Your task to perform on an android device: Open settings Image 0: 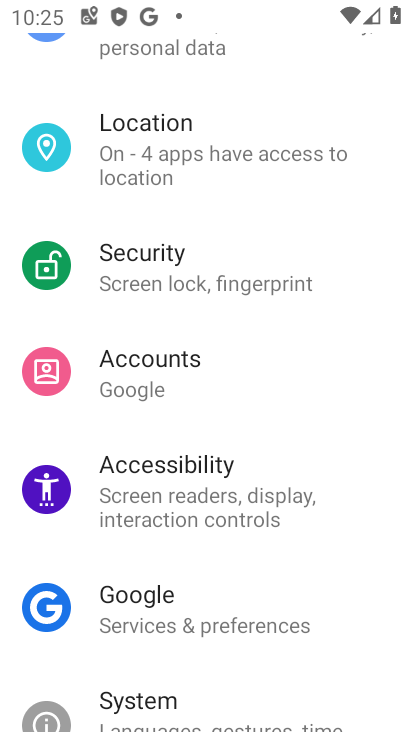
Step 0: press home button
Your task to perform on an android device: Open settings Image 1: 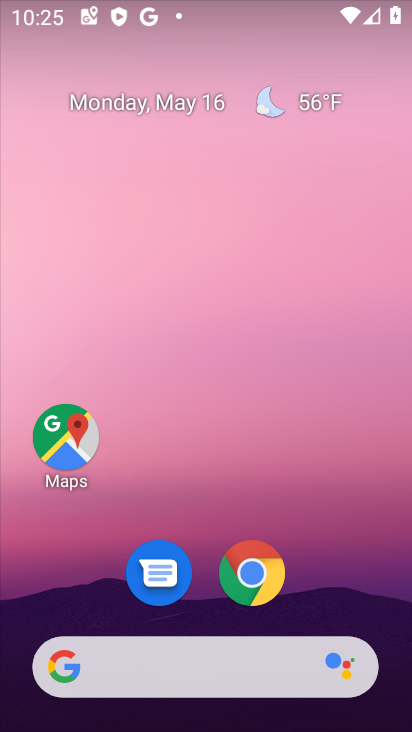
Step 1: drag from (382, 594) to (338, 221)
Your task to perform on an android device: Open settings Image 2: 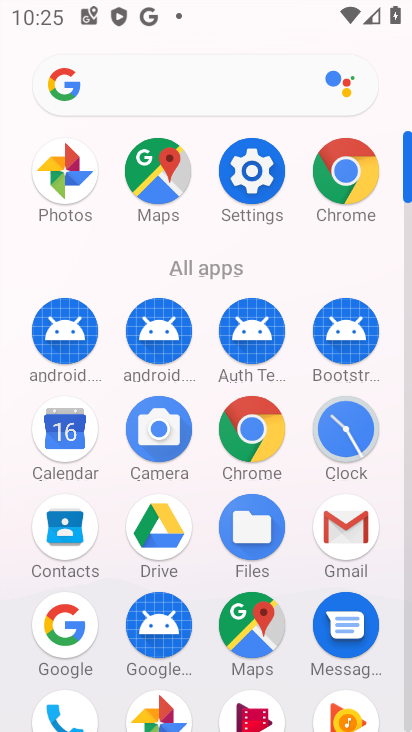
Step 2: click (254, 195)
Your task to perform on an android device: Open settings Image 3: 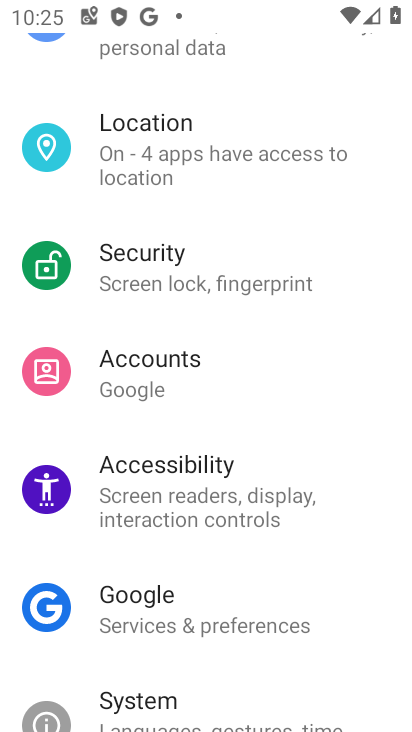
Step 3: task complete